Your task to perform on an android device: remove spam from my inbox in the gmail app Image 0: 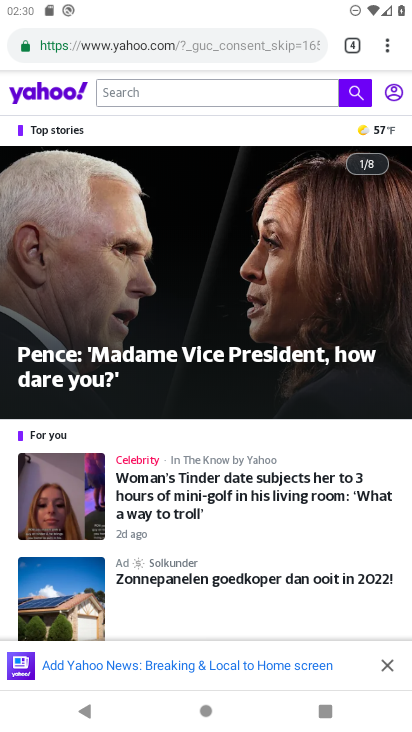
Step 0: press home button
Your task to perform on an android device: remove spam from my inbox in the gmail app Image 1: 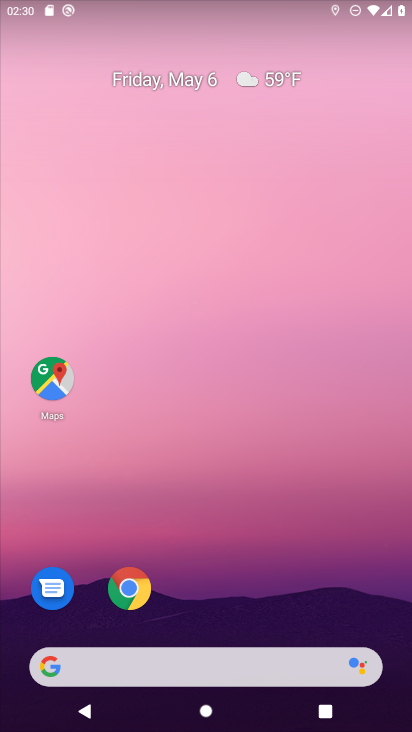
Step 1: drag from (186, 629) to (222, 81)
Your task to perform on an android device: remove spam from my inbox in the gmail app Image 2: 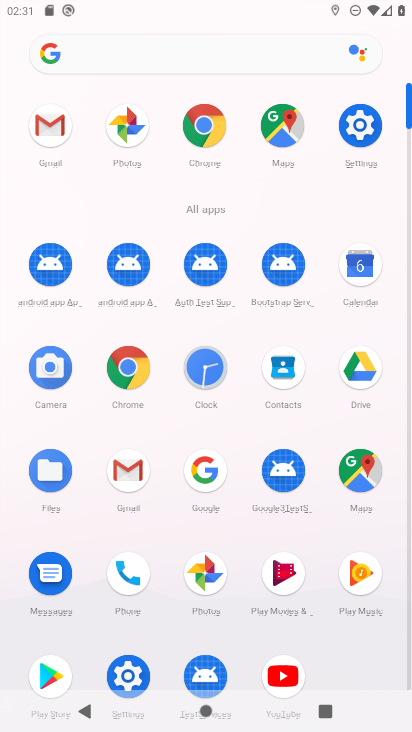
Step 2: click (39, 118)
Your task to perform on an android device: remove spam from my inbox in the gmail app Image 3: 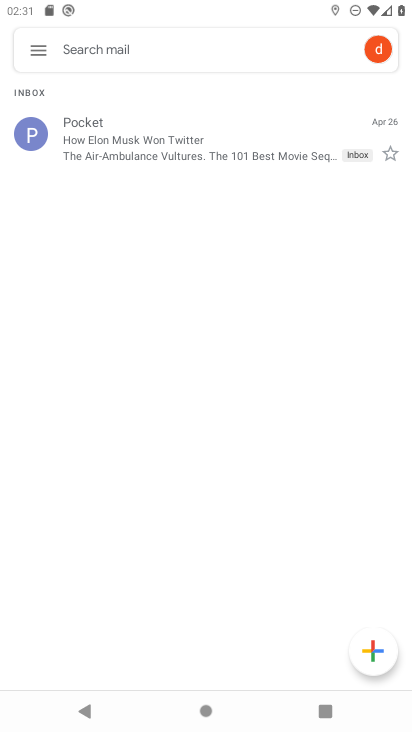
Step 3: click (41, 63)
Your task to perform on an android device: remove spam from my inbox in the gmail app Image 4: 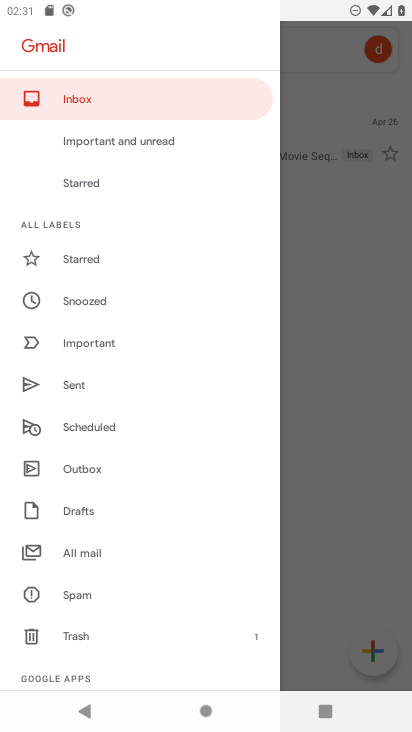
Step 4: click (79, 598)
Your task to perform on an android device: remove spam from my inbox in the gmail app Image 5: 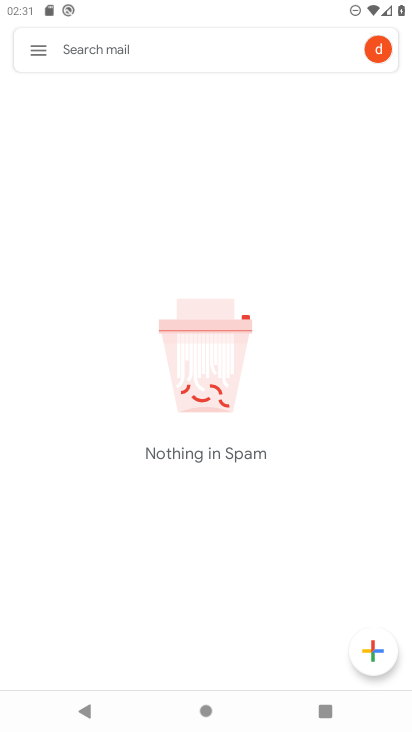
Step 5: task complete